Your task to perform on an android device: Go to battery settings Image 0: 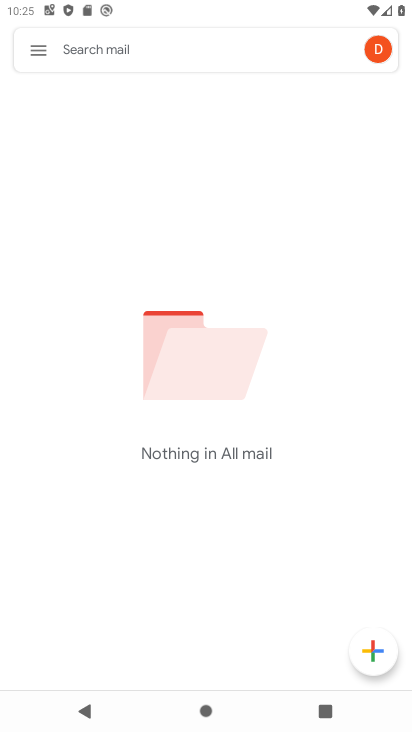
Step 0: press home button
Your task to perform on an android device: Go to battery settings Image 1: 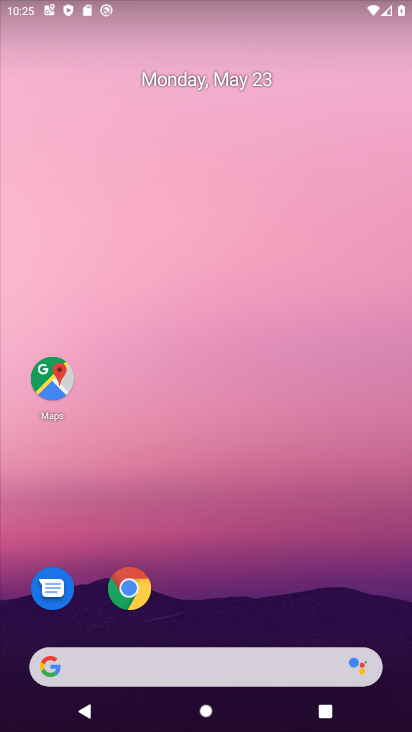
Step 1: drag from (254, 512) to (251, 42)
Your task to perform on an android device: Go to battery settings Image 2: 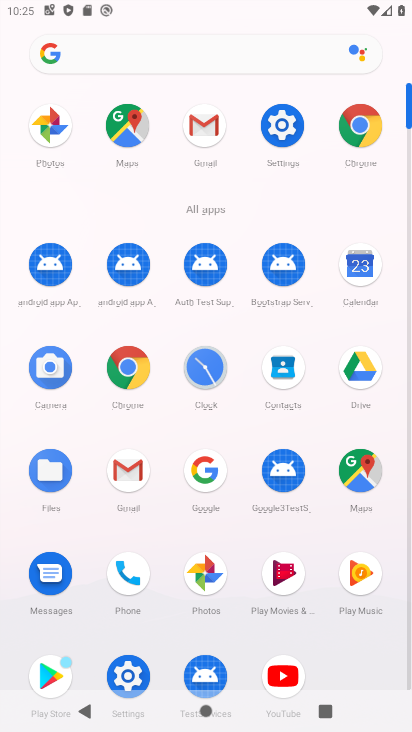
Step 2: click (302, 111)
Your task to perform on an android device: Go to battery settings Image 3: 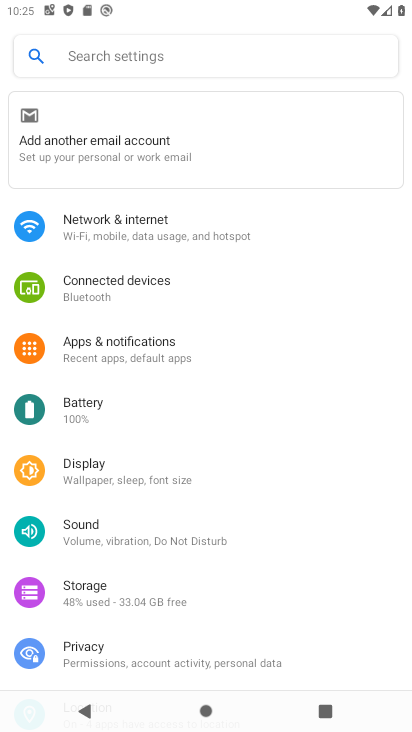
Step 3: drag from (217, 517) to (297, 211)
Your task to perform on an android device: Go to battery settings Image 4: 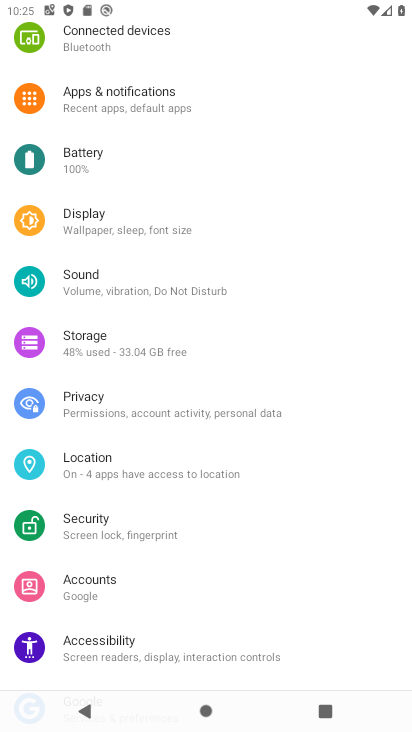
Step 4: click (120, 166)
Your task to perform on an android device: Go to battery settings Image 5: 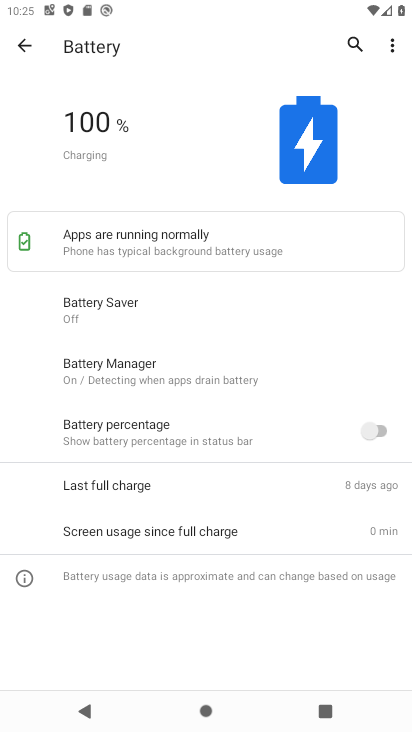
Step 5: task complete